Your task to perform on an android device: read, delete, or share a saved page in the chrome app Image 0: 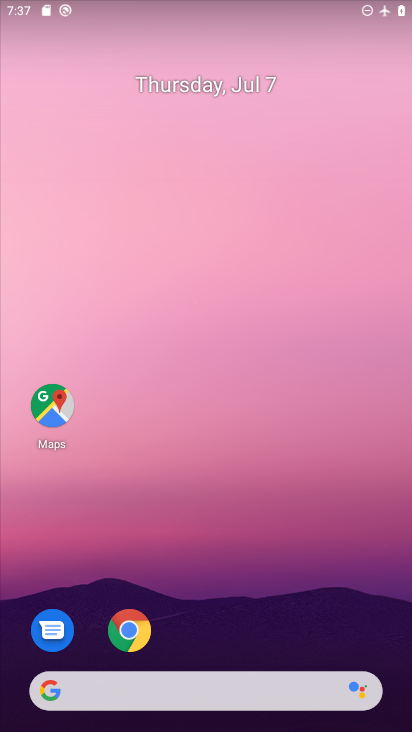
Step 0: click (129, 630)
Your task to perform on an android device: read, delete, or share a saved page in the chrome app Image 1: 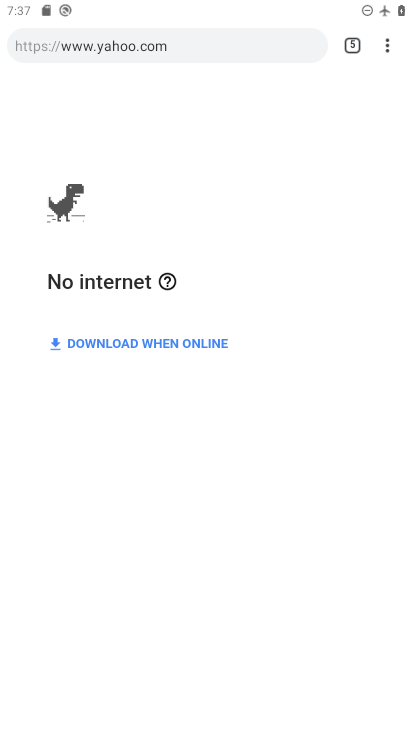
Step 1: click (386, 40)
Your task to perform on an android device: read, delete, or share a saved page in the chrome app Image 2: 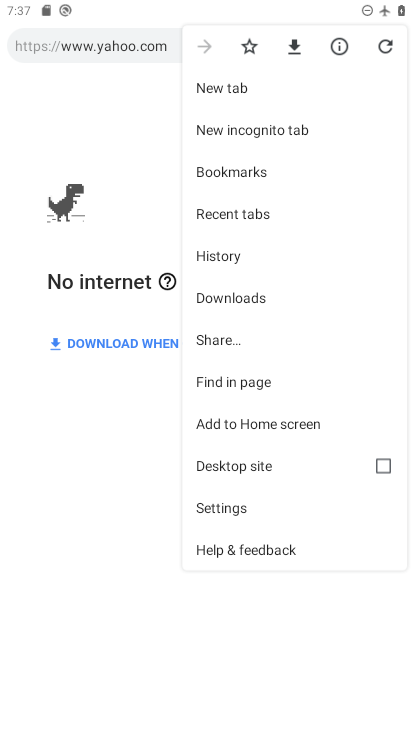
Step 2: click (241, 291)
Your task to perform on an android device: read, delete, or share a saved page in the chrome app Image 3: 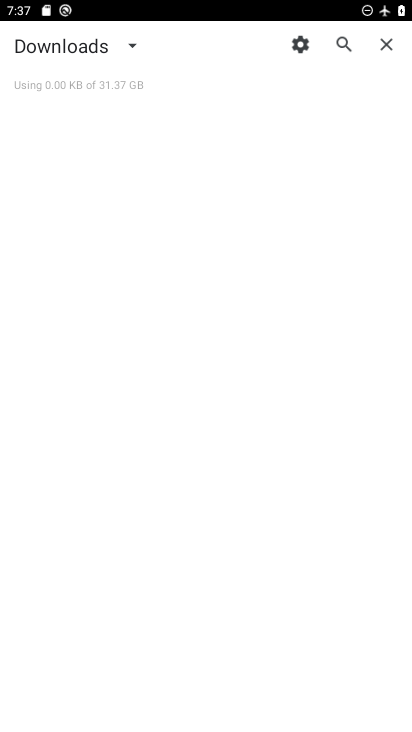
Step 3: task complete